Your task to perform on an android device: Open Yahoo.com Image 0: 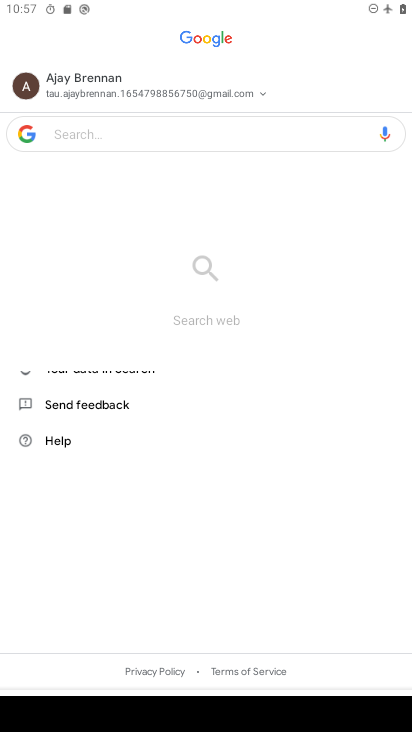
Step 0: press home button
Your task to perform on an android device: Open Yahoo.com Image 1: 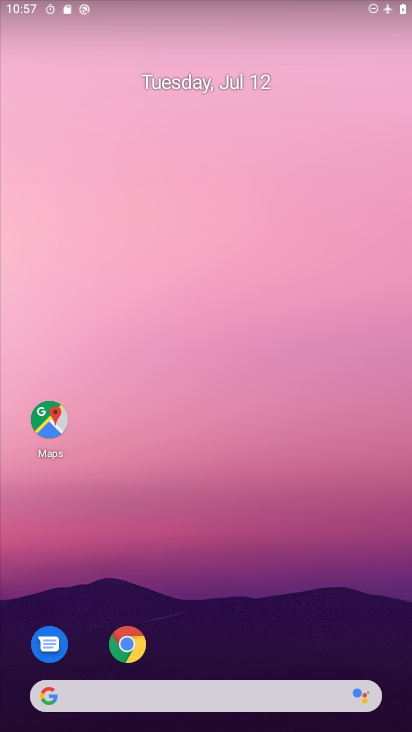
Step 1: click (150, 642)
Your task to perform on an android device: Open Yahoo.com Image 2: 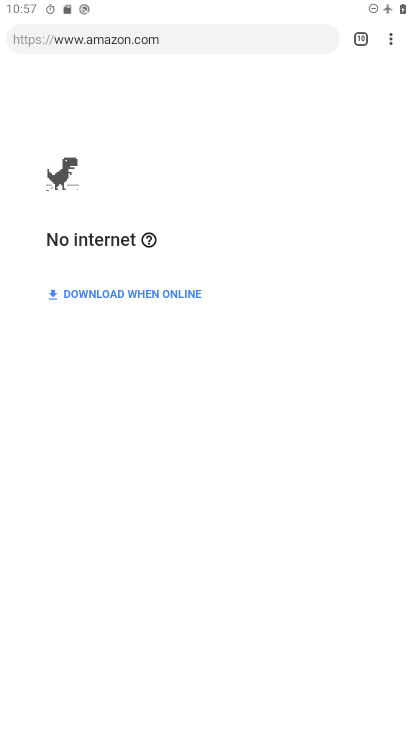
Step 2: click (359, 47)
Your task to perform on an android device: Open Yahoo.com Image 3: 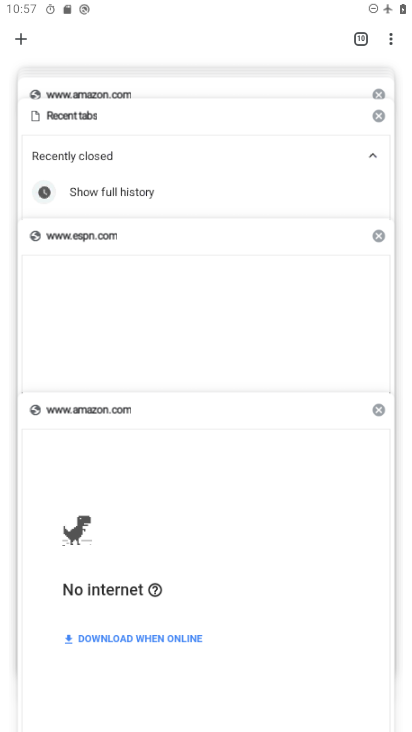
Step 3: click (28, 39)
Your task to perform on an android device: Open Yahoo.com Image 4: 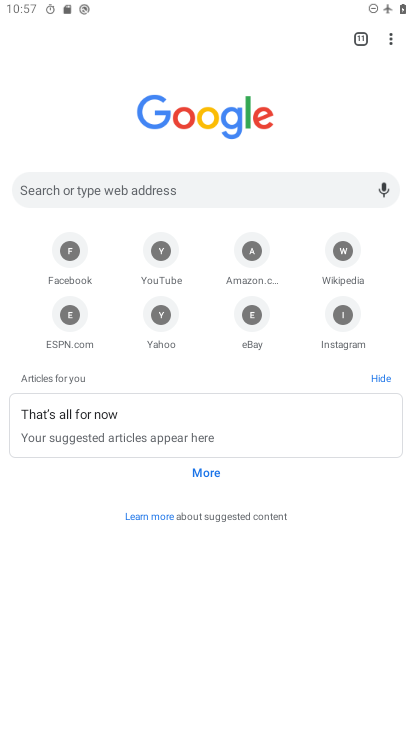
Step 4: click (167, 307)
Your task to perform on an android device: Open Yahoo.com Image 5: 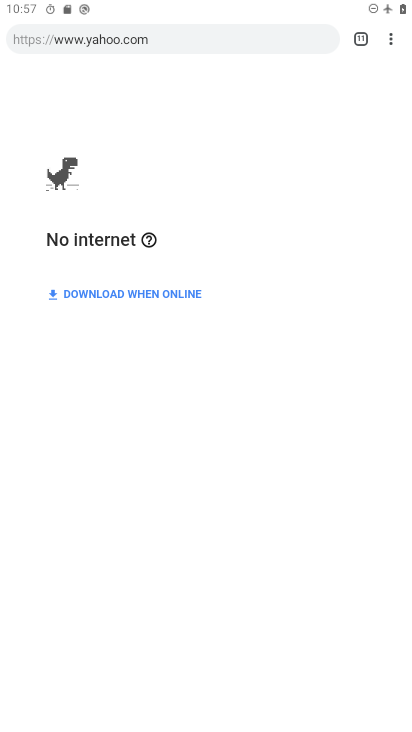
Step 5: task complete